Your task to perform on an android device: Open Chrome and go to the settings page Image 0: 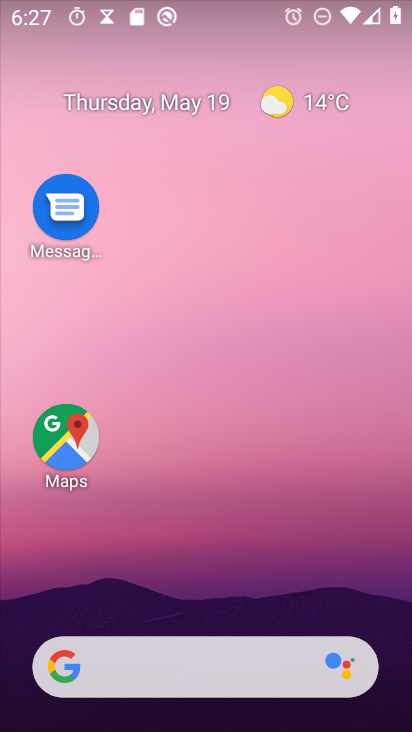
Step 0: drag from (196, 594) to (189, 10)
Your task to perform on an android device: Open Chrome and go to the settings page Image 1: 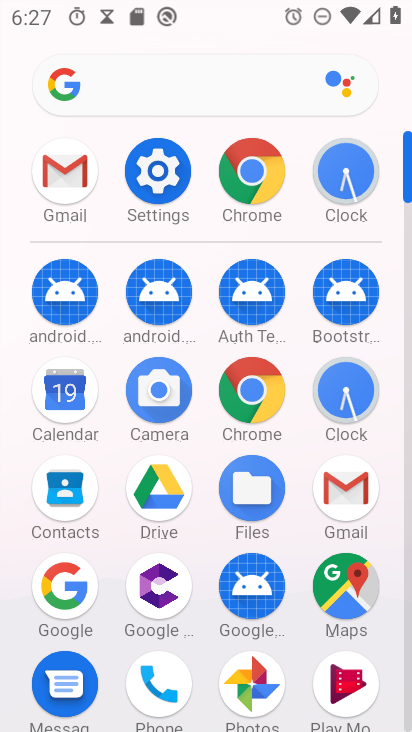
Step 1: click (258, 421)
Your task to perform on an android device: Open Chrome and go to the settings page Image 2: 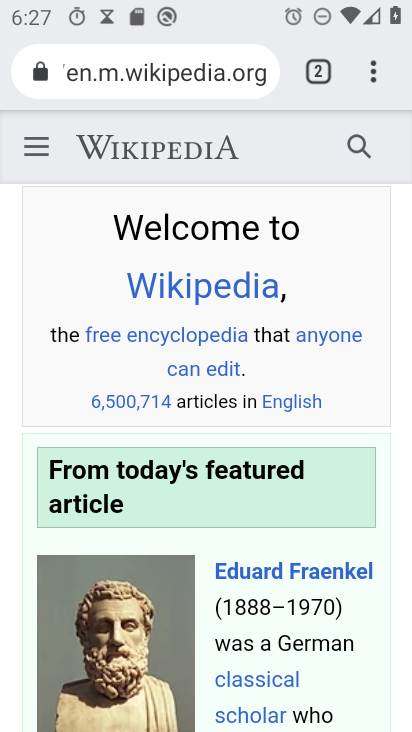
Step 2: click (370, 73)
Your task to perform on an android device: Open Chrome and go to the settings page Image 3: 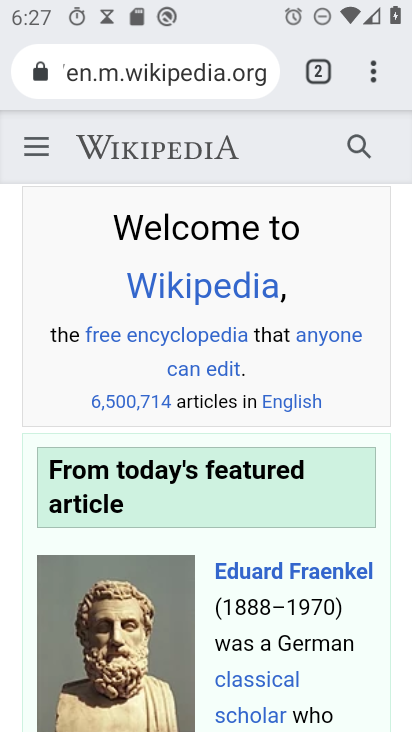
Step 3: click (380, 70)
Your task to perform on an android device: Open Chrome and go to the settings page Image 4: 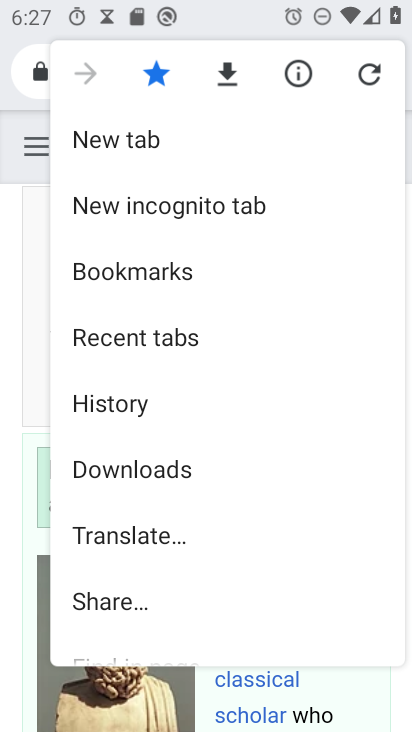
Step 4: drag from (129, 570) to (115, 358)
Your task to perform on an android device: Open Chrome and go to the settings page Image 5: 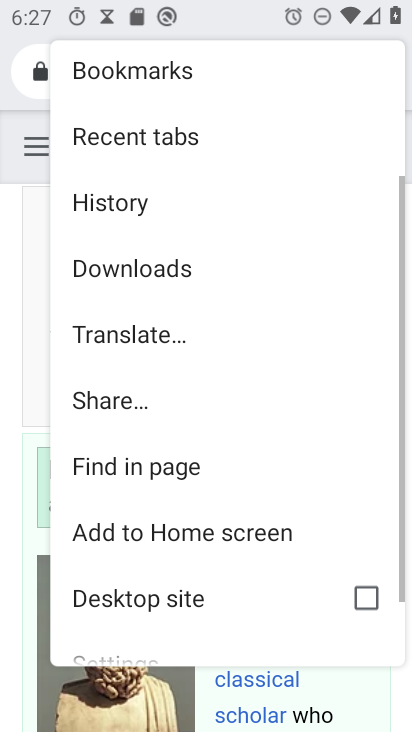
Step 5: drag from (150, 578) to (149, 313)
Your task to perform on an android device: Open Chrome and go to the settings page Image 6: 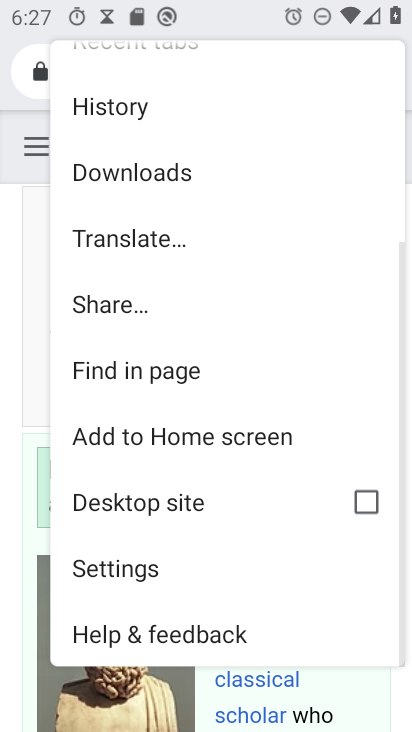
Step 6: click (120, 577)
Your task to perform on an android device: Open Chrome and go to the settings page Image 7: 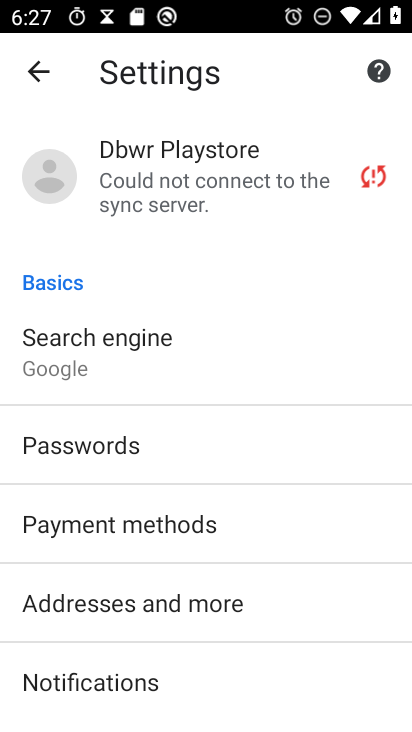
Step 7: task complete